Your task to perform on an android device: Open battery settings Image 0: 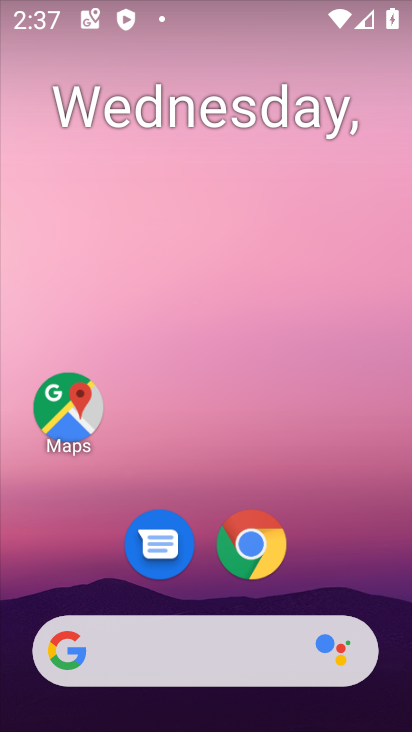
Step 0: drag from (387, 556) to (364, 138)
Your task to perform on an android device: Open battery settings Image 1: 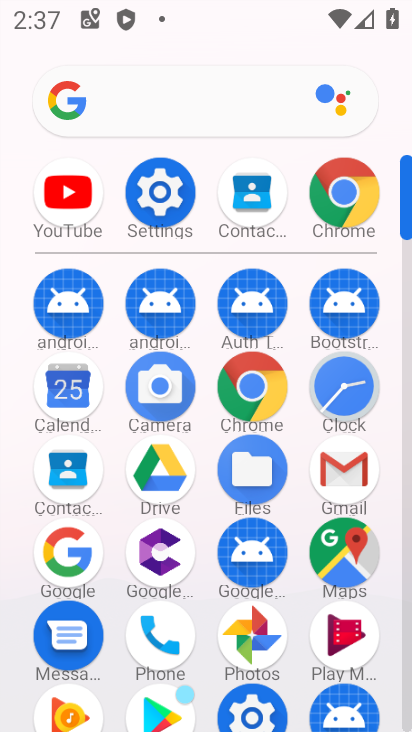
Step 1: click (161, 189)
Your task to perform on an android device: Open battery settings Image 2: 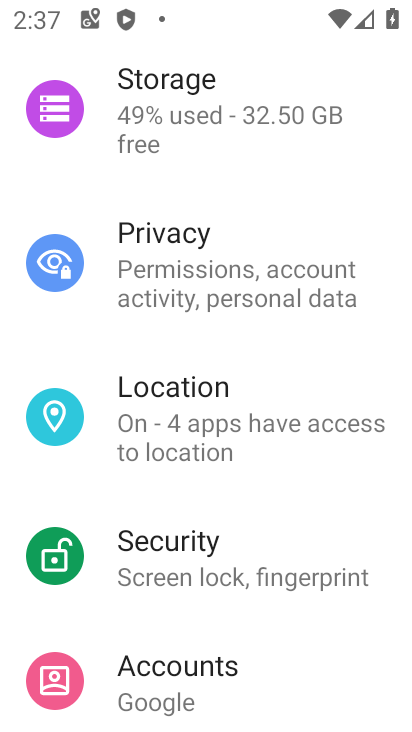
Step 2: drag from (234, 620) to (233, 176)
Your task to perform on an android device: Open battery settings Image 3: 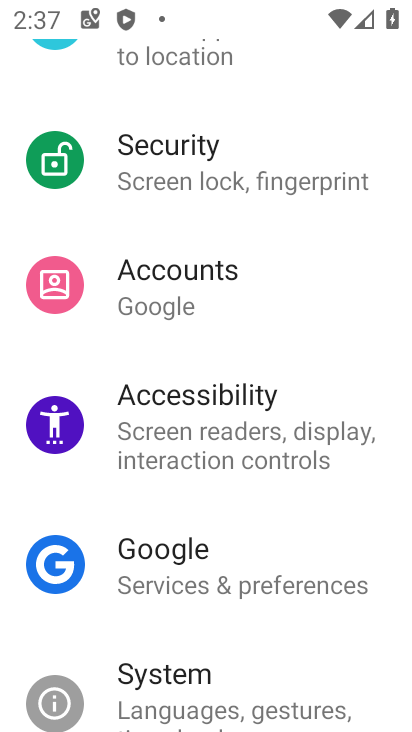
Step 3: drag from (258, 593) to (288, 197)
Your task to perform on an android device: Open battery settings Image 4: 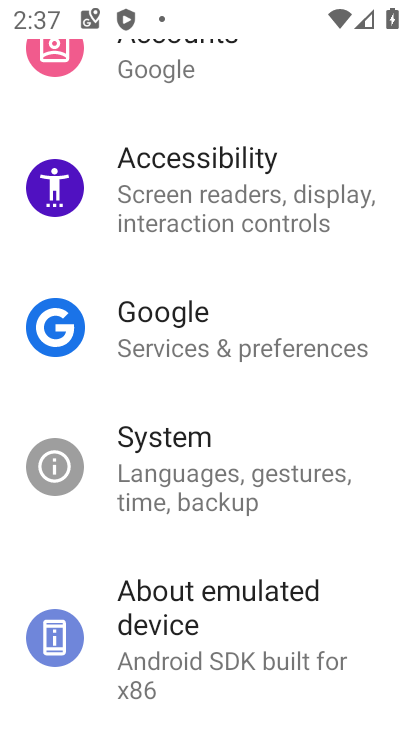
Step 4: drag from (235, 592) to (281, 229)
Your task to perform on an android device: Open battery settings Image 5: 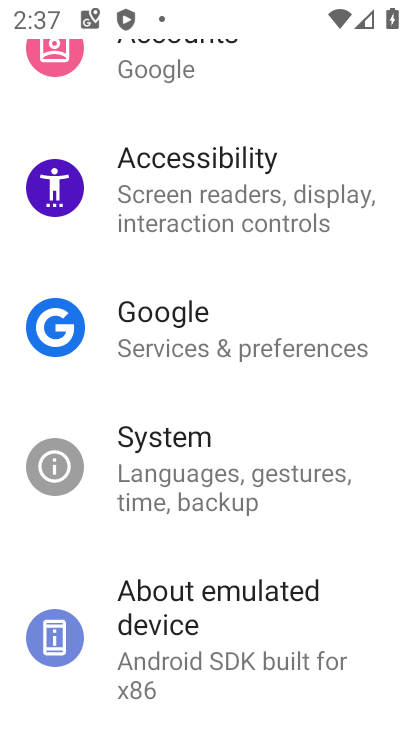
Step 5: drag from (302, 128) to (236, 675)
Your task to perform on an android device: Open battery settings Image 6: 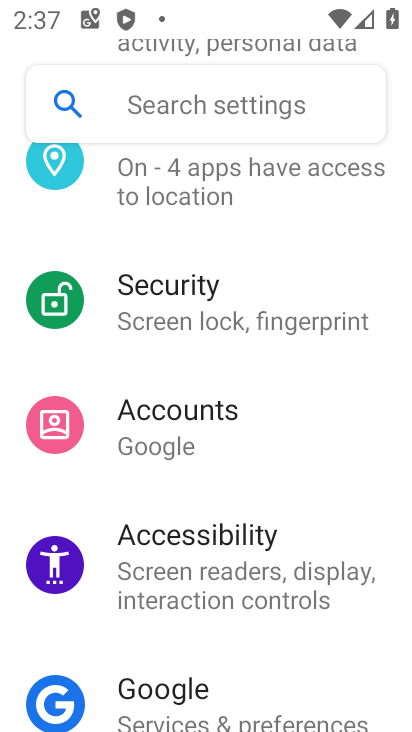
Step 6: drag from (298, 183) to (241, 627)
Your task to perform on an android device: Open battery settings Image 7: 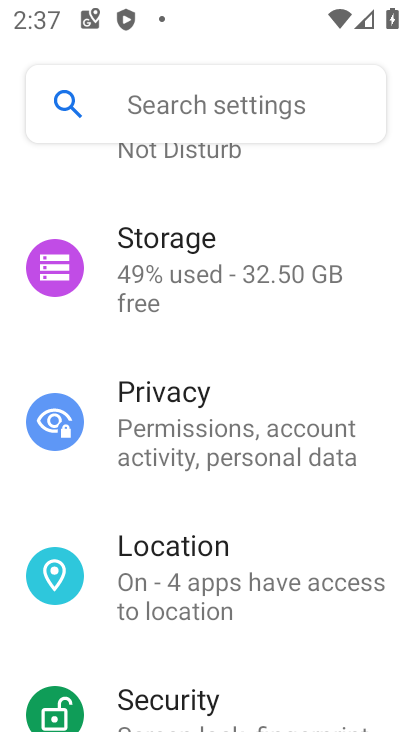
Step 7: drag from (214, 251) to (223, 634)
Your task to perform on an android device: Open battery settings Image 8: 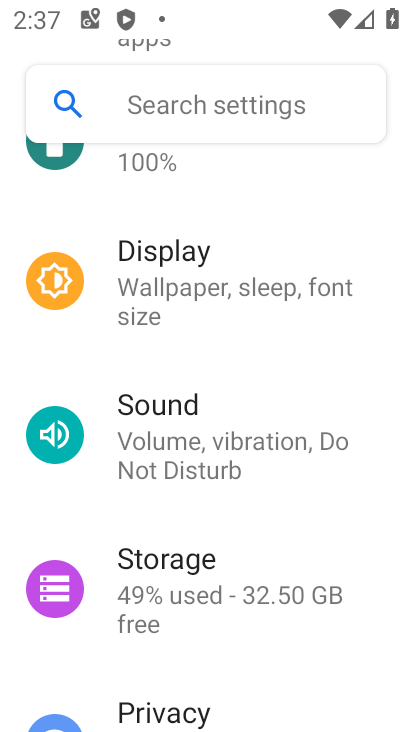
Step 8: drag from (246, 229) to (221, 691)
Your task to perform on an android device: Open battery settings Image 9: 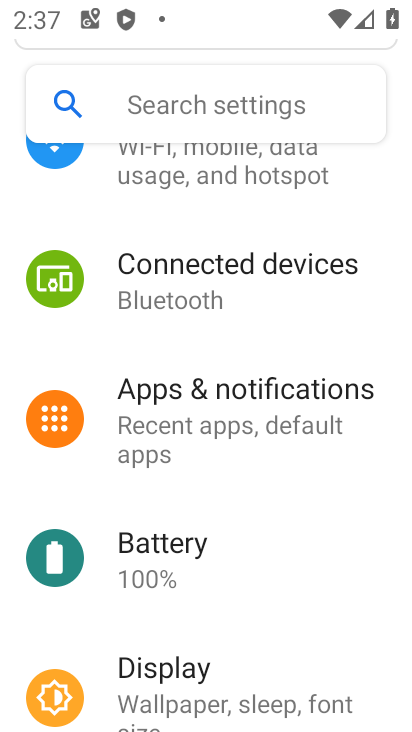
Step 9: click (152, 557)
Your task to perform on an android device: Open battery settings Image 10: 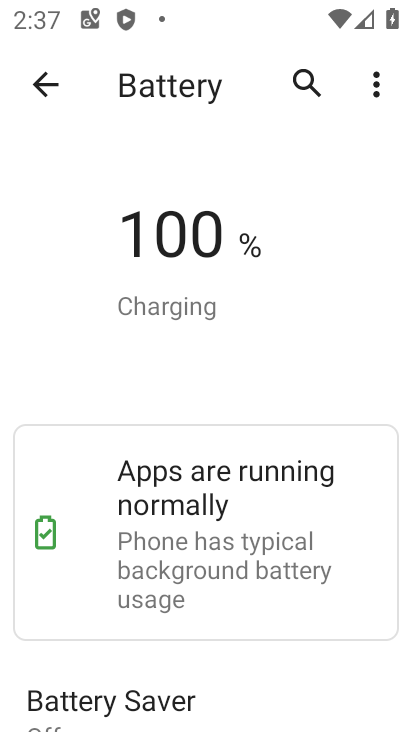
Step 10: task complete